Your task to perform on an android device: turn off translation in the chrome app Image 0: 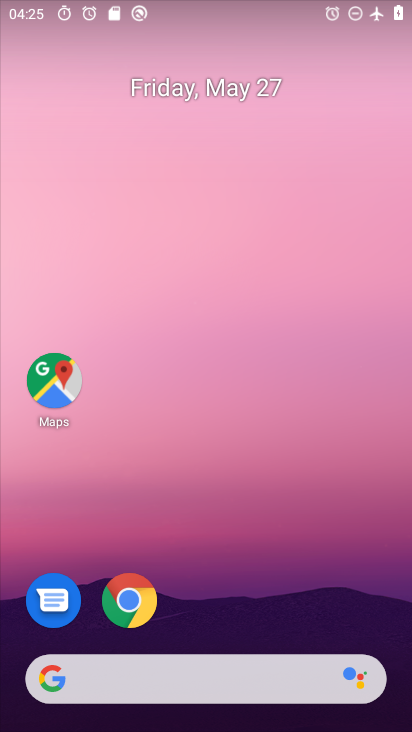
Step 0: click (129, 598)
Your task to perform on an android device: turn off translation in the chrome app Image 1: 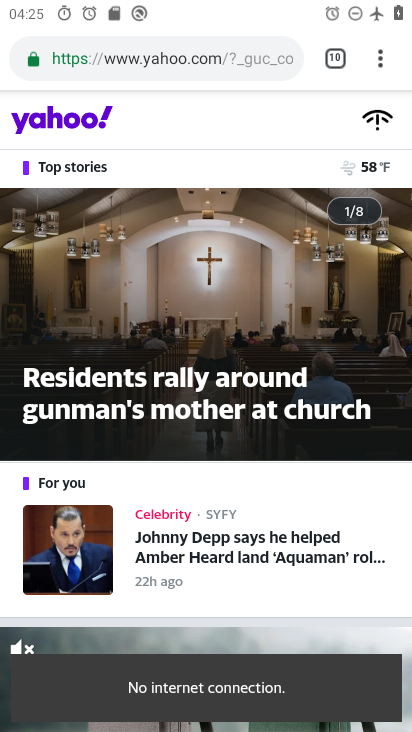
Step 1: click (380, 65)
Your task to perform on an android device: turn off translation in the chrome app Image 2: 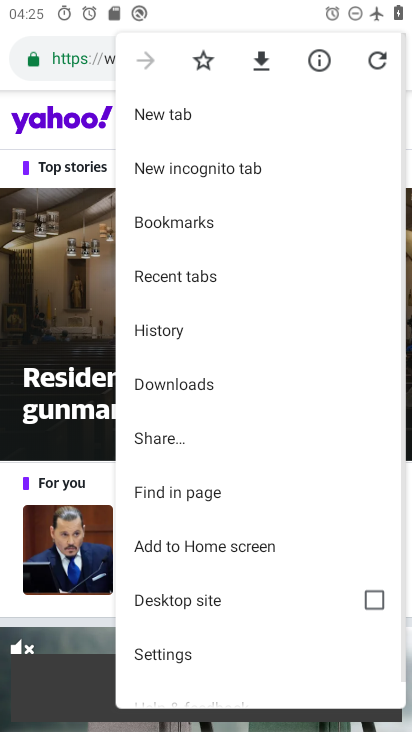
Step 2: click (170, 655)
Your task to perform on an android device: turn off translation in the chrome app Image 3: 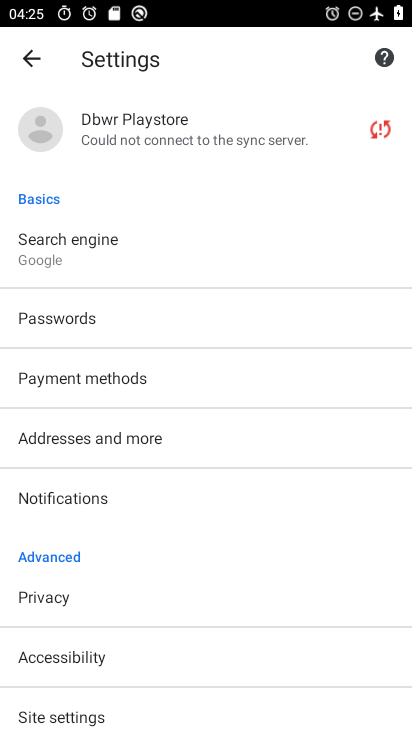
Step 3: drag from (111, 632) to (95, 240)
Your task to perform on an android device: turn off translation in the chrome app Image 4: 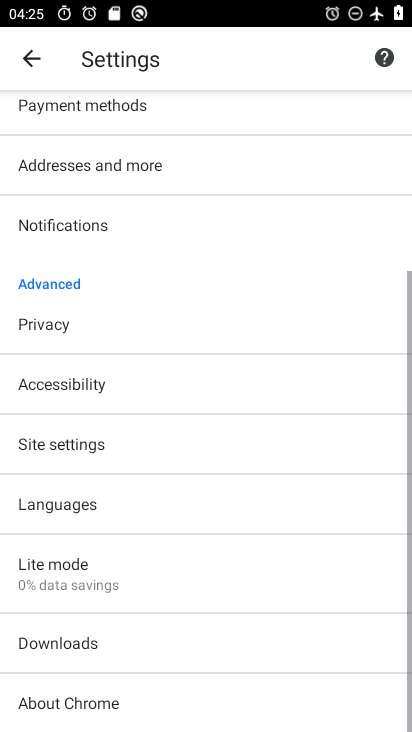
Step 4: click (71, 501)
Your task to perform on an android device: turn off translation in the chrome app Image 5: 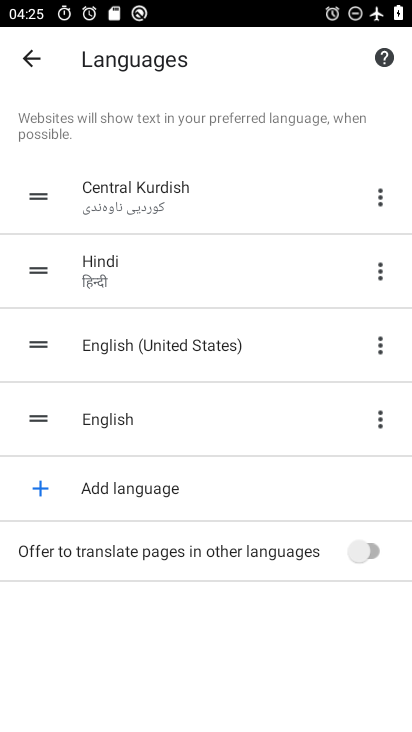
Step 5: task complete